Your task to perform on an android device: Go to Wikipedia Image 0: 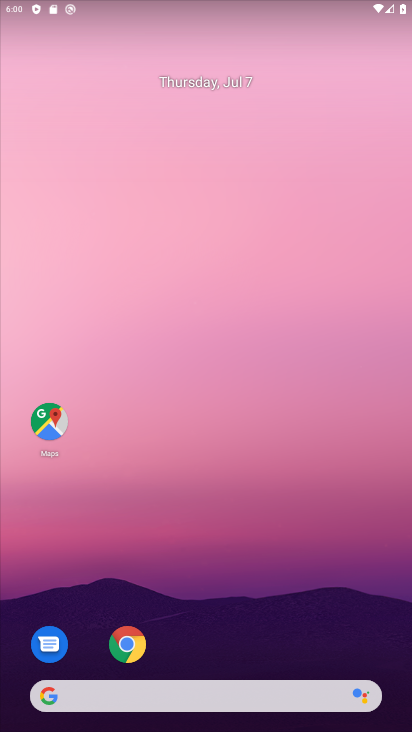
Step 0: press home button
Your task to perform on an android device: Go to Wikipedia Image 1: 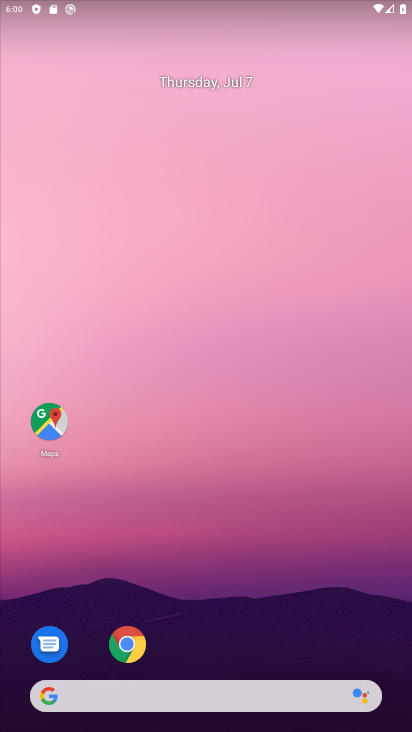
Step 1: drag from (354, 655) to (325, 202)
Your task to perform on an android device: Go to Wikipedia Image 2: 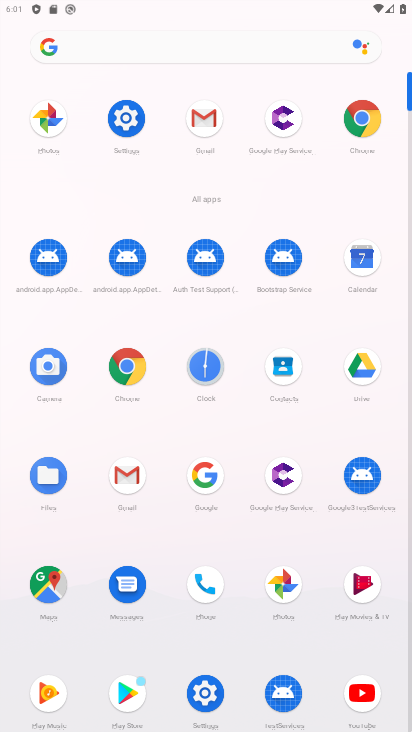
Step 2: click (362, 126)
Your task to perform on an android device: Go to Wikipedia Image 3: 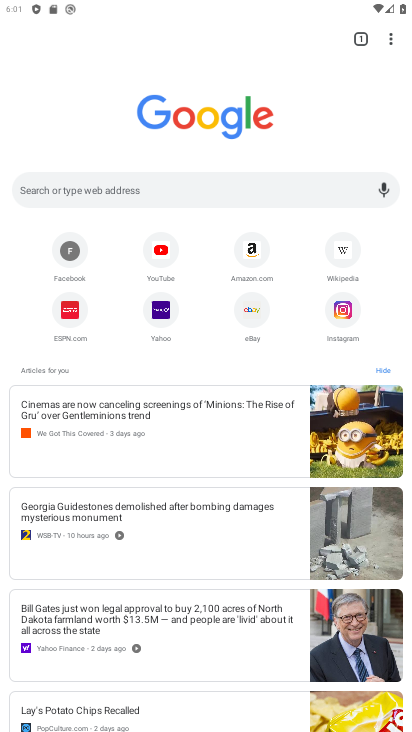
Step 3: click (210, 179)
Your task to perform on an android device: Go to Wikipedia Image 4: 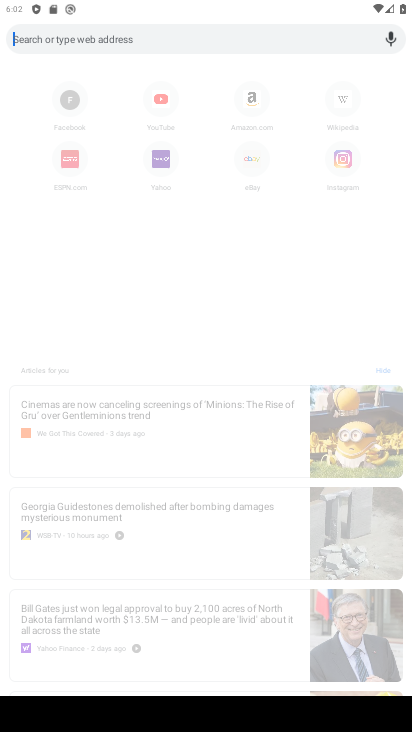
Step 4: type "Wikipedia"
Your task to perform on an android device: Go to Wikipedia Image 5: 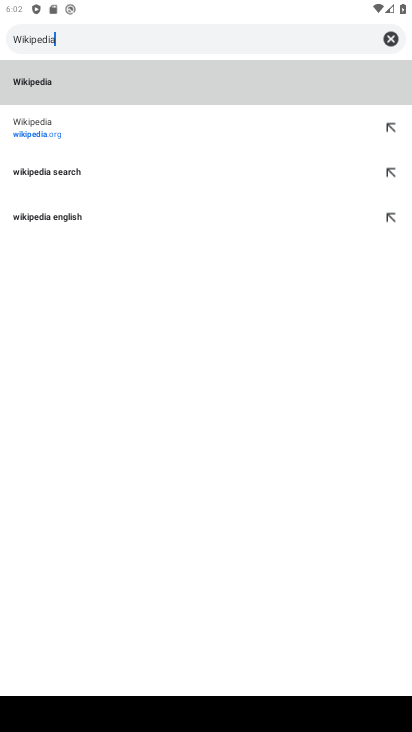
Step 5: type ""
Your task to perform on an android device: Go to Wikipedia Image 6: 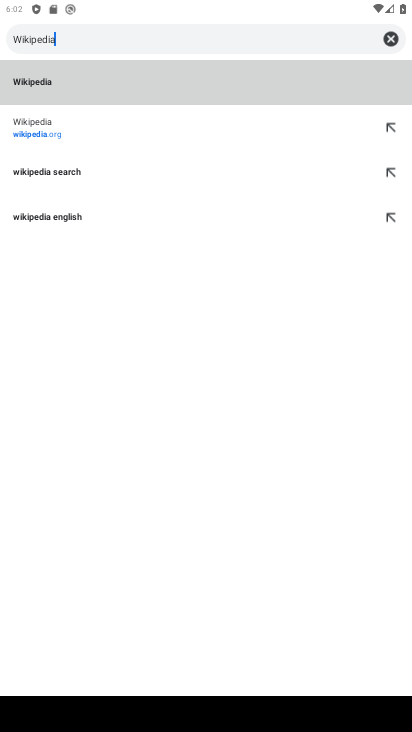
Step 6: click (66, 120)
Your task to perform on an android device: Go to Wikipedia Image 7: 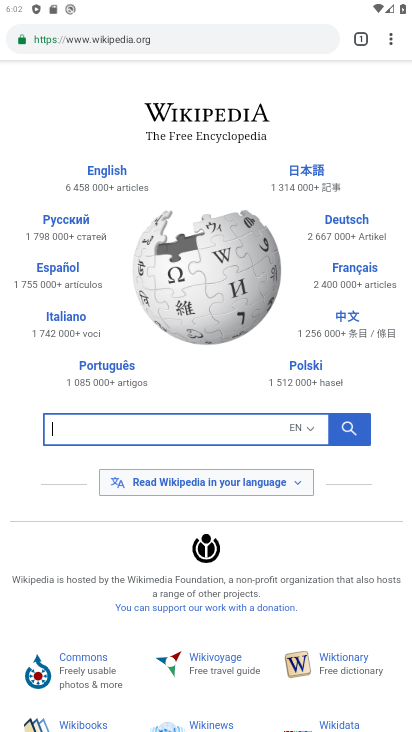
Step 7: task complete